Your task to perform on an android device: turn off improve location accuracy Image 0: 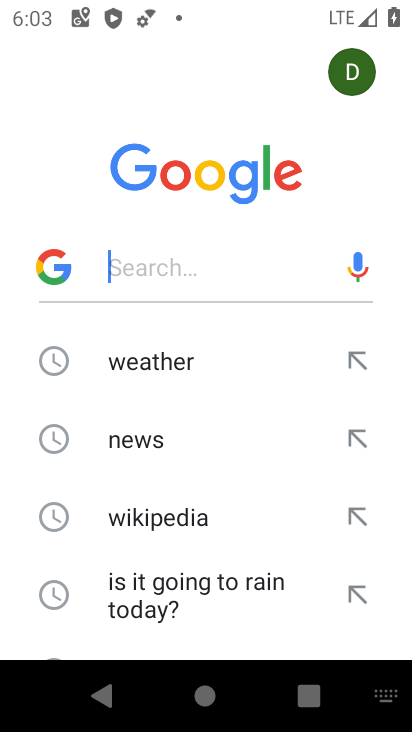
Step 0: press home button
Your task to perform on an android device: turn off improve location accuracy Image 1: 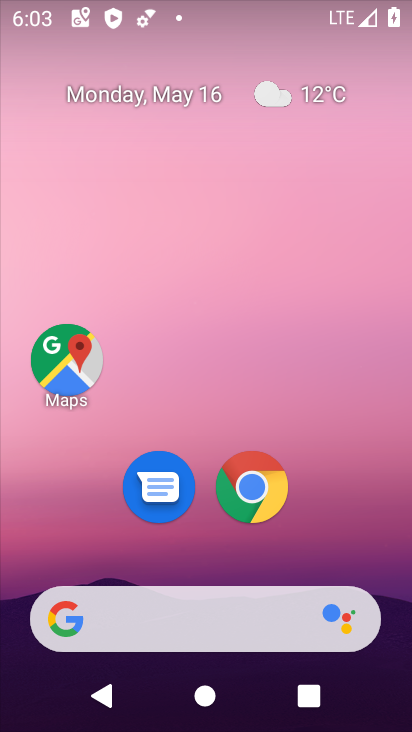
Step 1: drag from (357, 515) to (294, 126)
Your task to perform on an android device: turn off improve location accuracy Image 2: 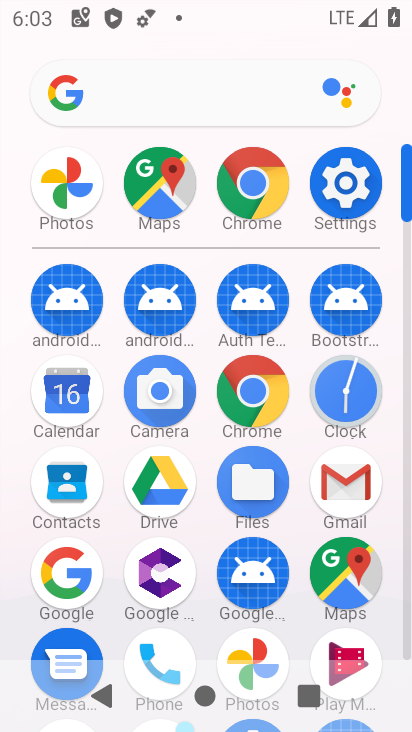
Step 2: click (342, 173)
Your task to perform on an android device: turn off improve location accuracy Image 3: 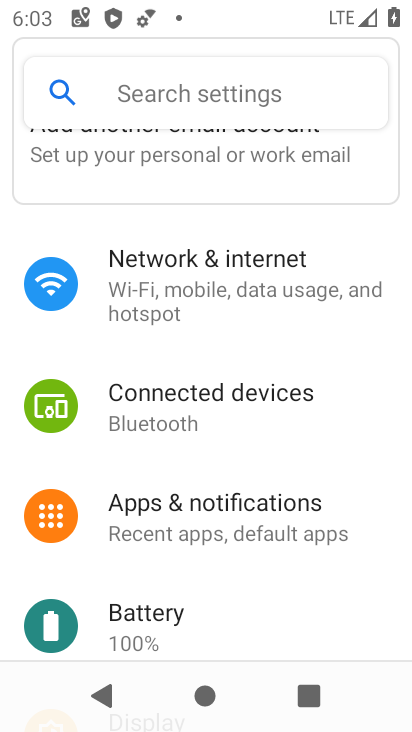
Step 3: drag from (250, 579) to (267, 193)
Your task to perform on an android device: turn off improve location accuracy Image 4: 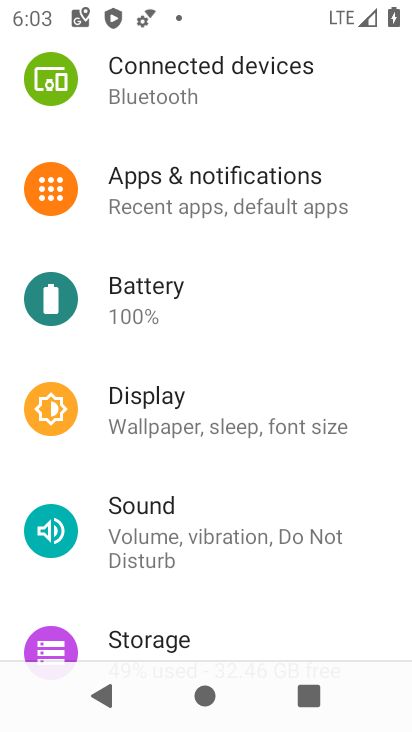
Step 4: drag from (262, 495) to (256, 112)
Your task to perform on an android device: turn off improve location accuracy Image 5: 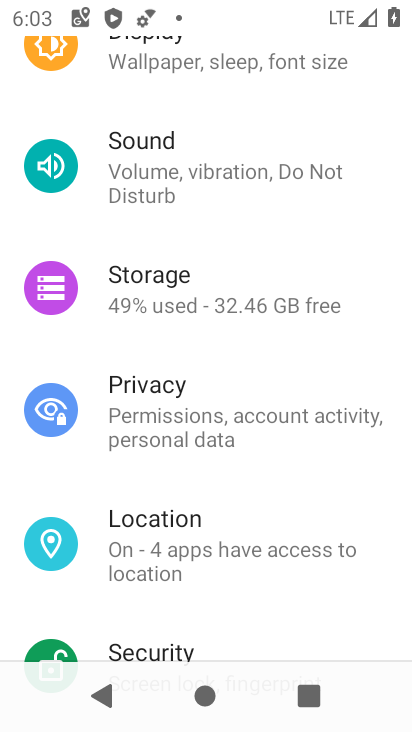
Step 5: click (172, 525)
Your task to perform on an android device: turn off improve location accuracy Image 6: 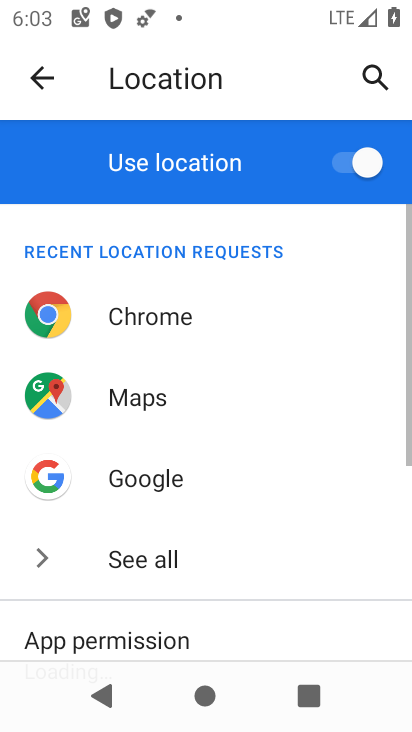
Step 6: drag from (172, 517) to (214, 139)
Your task to perform on an android device: turn off improve location accuracy Image 7: 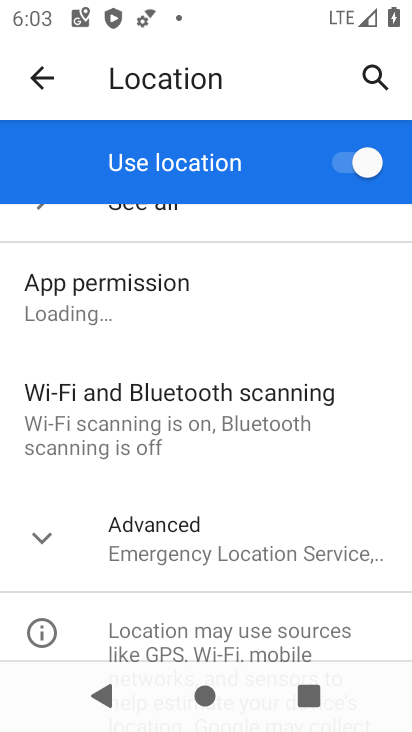
Step 7: drag from (285, 528) to (272, 272)
Your task to perform on an android device: turn off improve location accuracy Image 8: 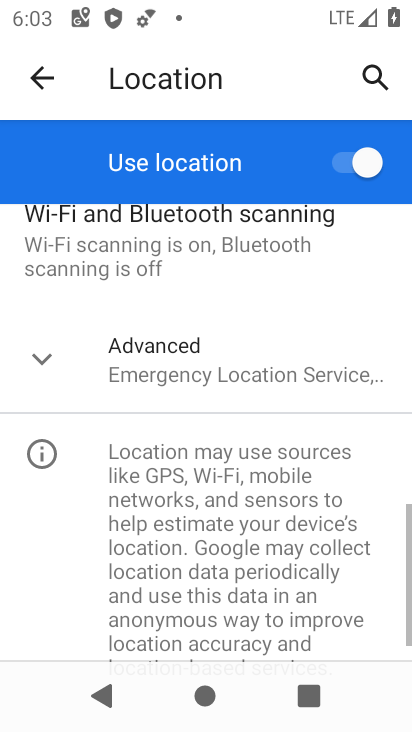
Step 8: click (143, 378)
Your task to perform on an android device: turn off improve location accuracy Image 9: 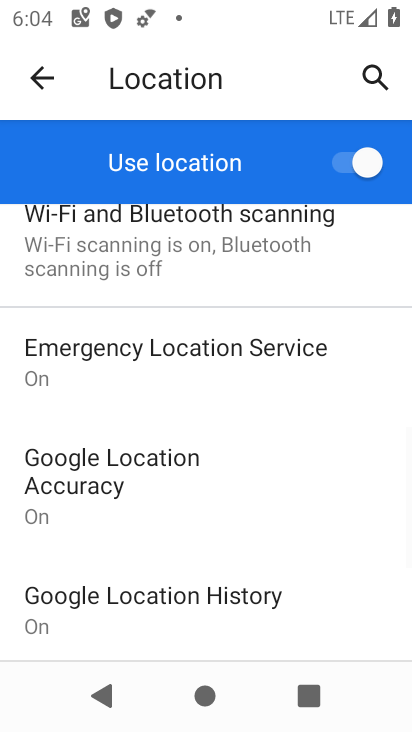
Step 9: drag from (297, 603) to (262, 315)
Your task to perform on an android device: turn off improve location accuracy Image 10: 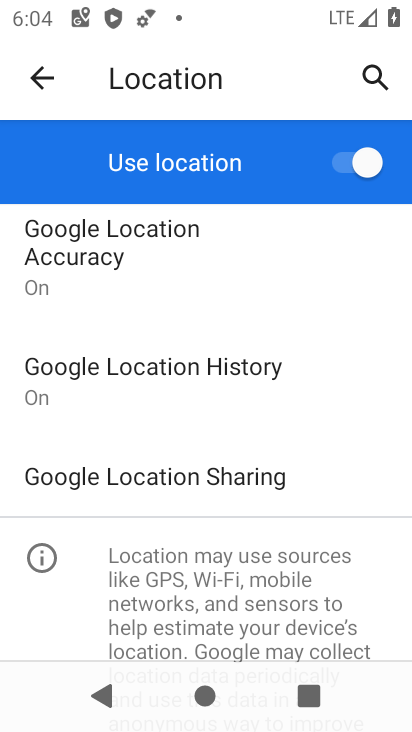
Step 10: click (139, 250)
Your task to perform on an android device: turn off improve location accuracy Image 11: 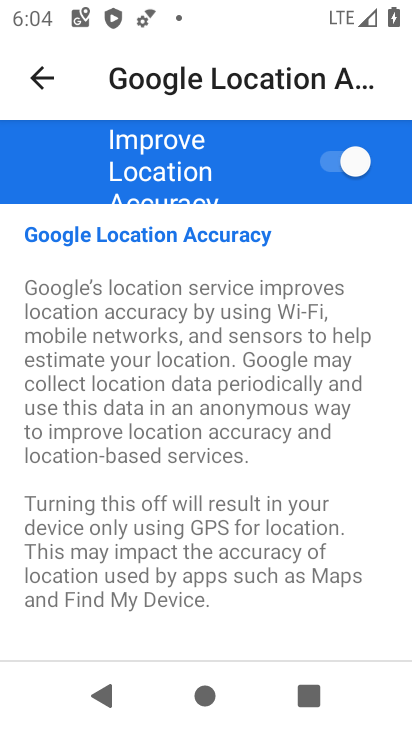
Step 11: click (345, 157)
Your task to perform on an android device: turn off improve location accuracy Image 12: 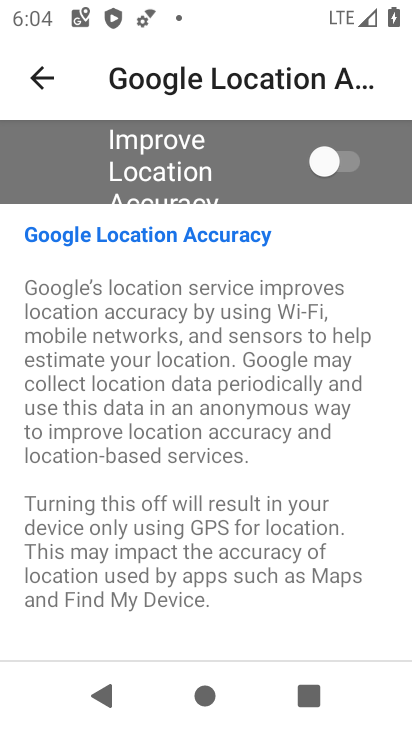
Step 12: task complete